Your task to perform on an android device: turn notification dots off Image 0: 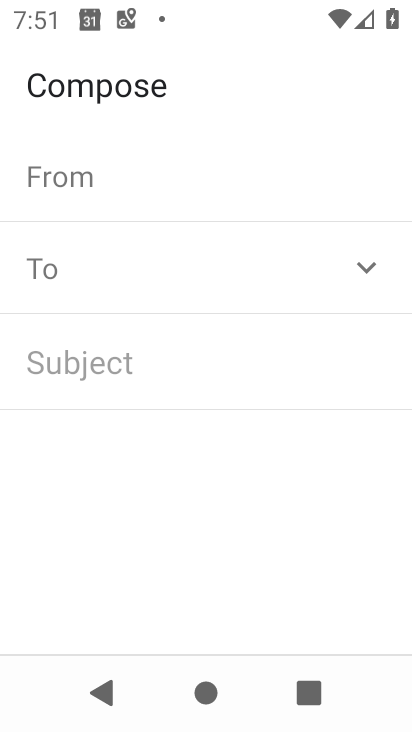
Step 0: click (256, 473)
Your task to perform on an android device: turn notification dots off Image 1: 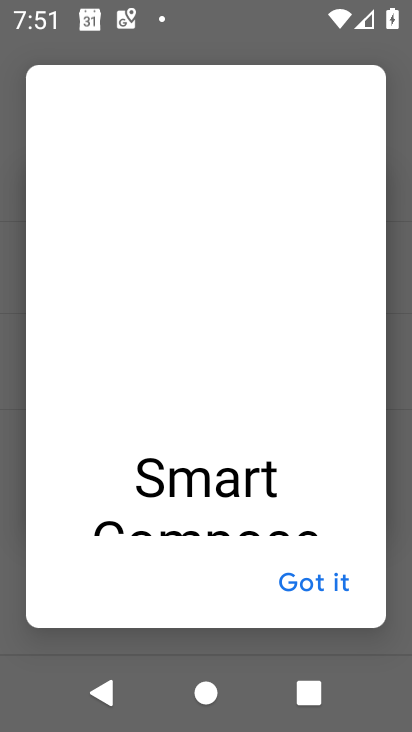
Step 1: press home button
Your task to perform on an android device: turn notification dots off Image 2: 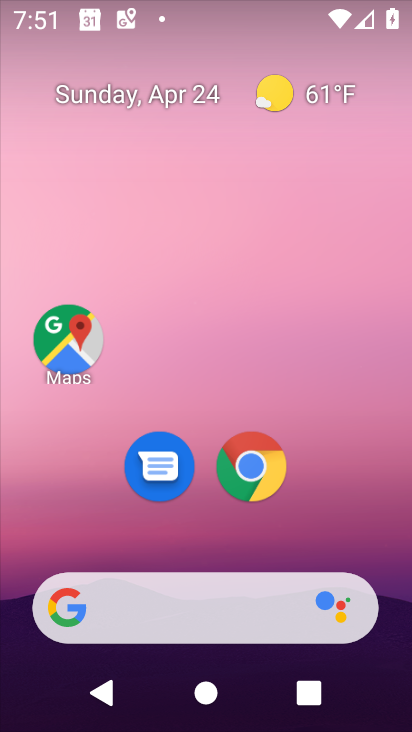
Step 2: drag from (220, 514) to (278, 22)
Your task to perform on an android device: turn notification dots off Image 3: 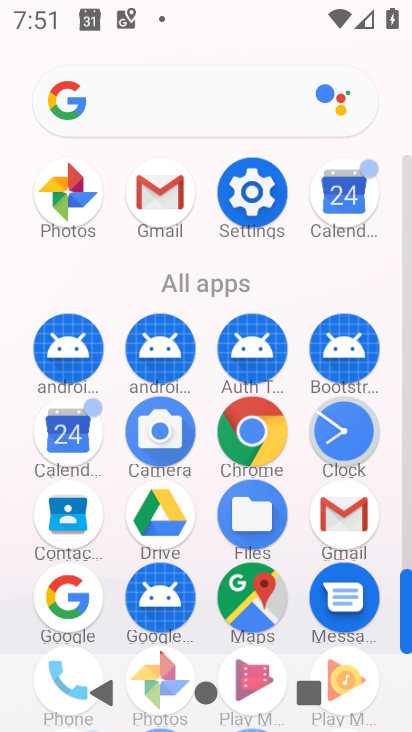
Step 3: click (264, 223)
Your task to perform on an android device: turn notification dots off Image 4: 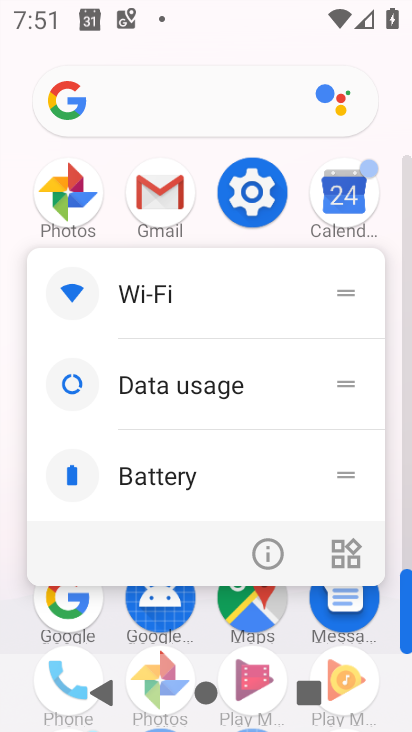
Step 4: click (265, 221)
Your task to perform on an android device: turn notification dots off Image 5: 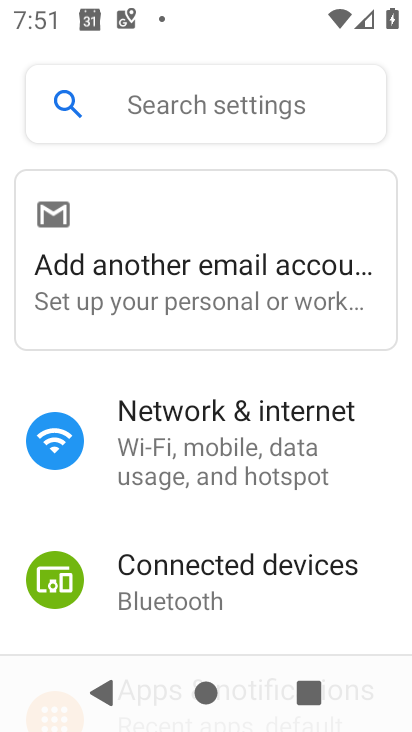
Step 5: drag from (208, 612) to (241, 271)
Your task to perform on an android device: turn notification dots off Image 6: 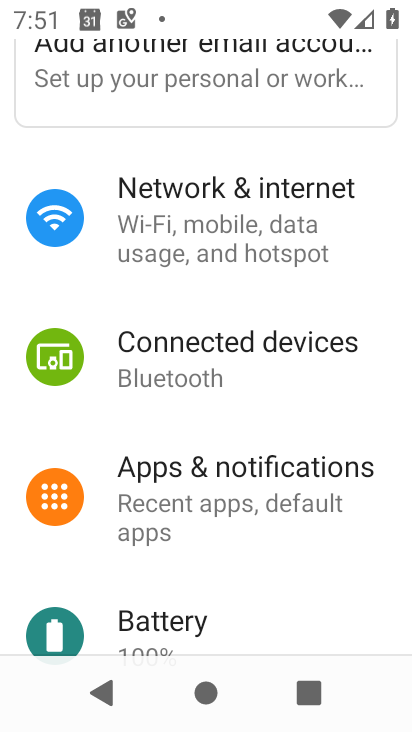
Step 6: click (224, 497)
Your task to perform on an android device: turn notification dots off Image 7: 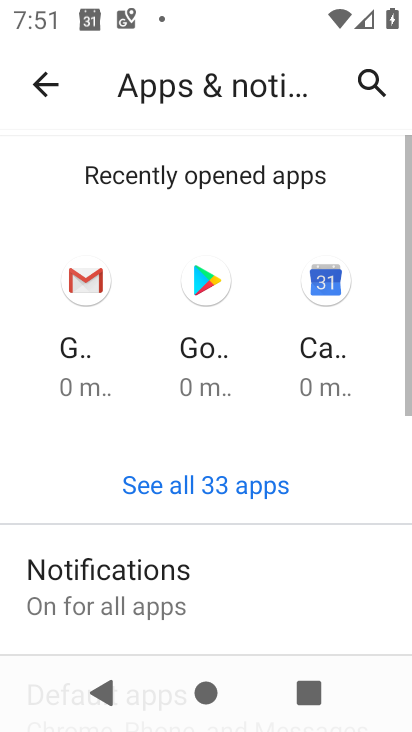
Step 7: drag from (175, 571) to (234, 166)
Your task to perform on an android device: turn notification dots off Image 8: 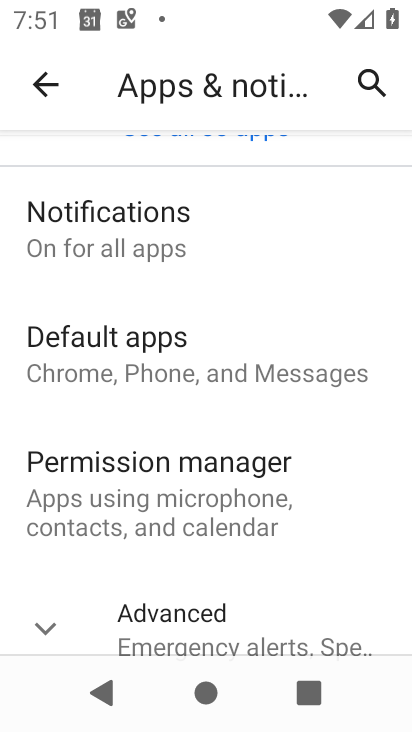
Step 8: drag from (184, 604) to (217, 418)
Your task to perform on an android device: turn notification dots off Image 9: 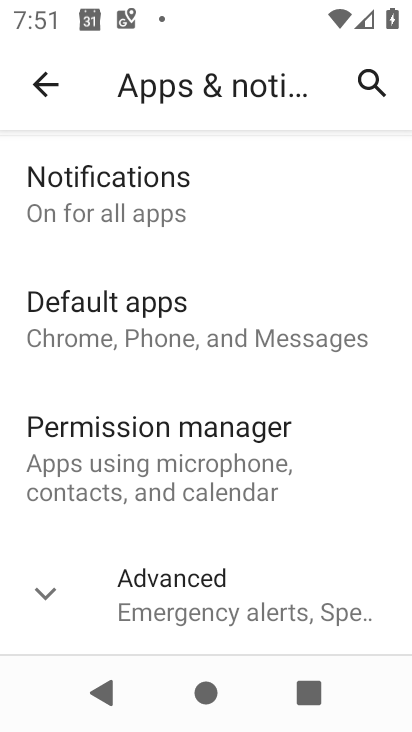
Step 9: click (157, 212)
Your task to perform on an android device: turn notification dots off Image 10: 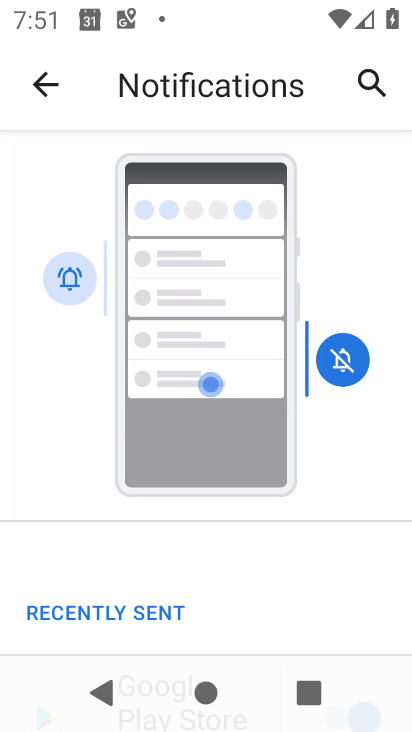
Step 10: drag from (186, 575) to (215, 151)
Your task to perform on an android device: turn notification dots off Image 11: 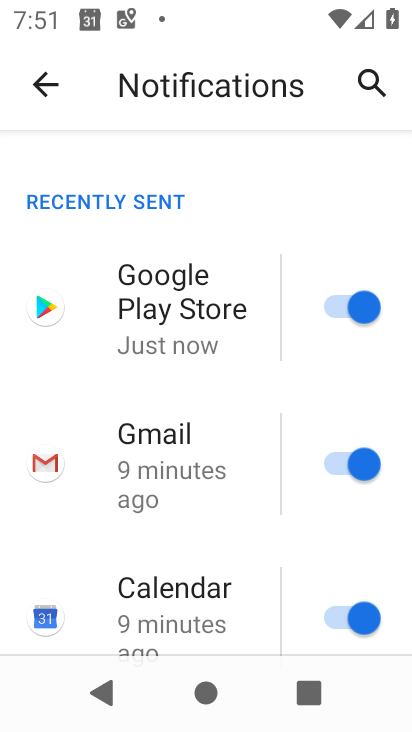
Step 11: drag from (172, 550) to (259, 1)
Your task to perform on an android device: turn notification dots off Image 12: 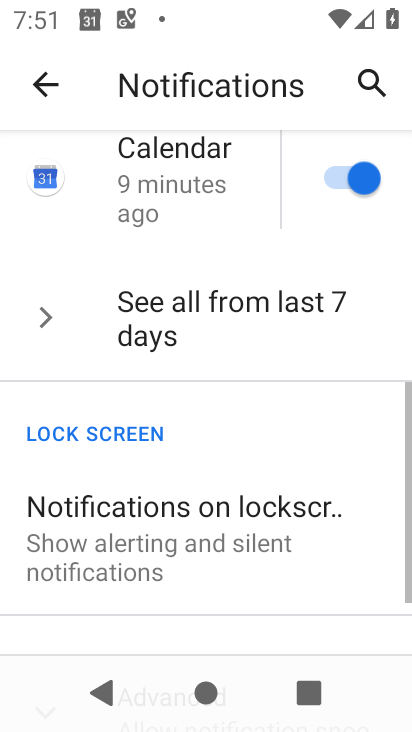
Step 12: drag from (191, 524) to (231, 134)
Your task to perform on an android device: turn notification dots off Image 13: 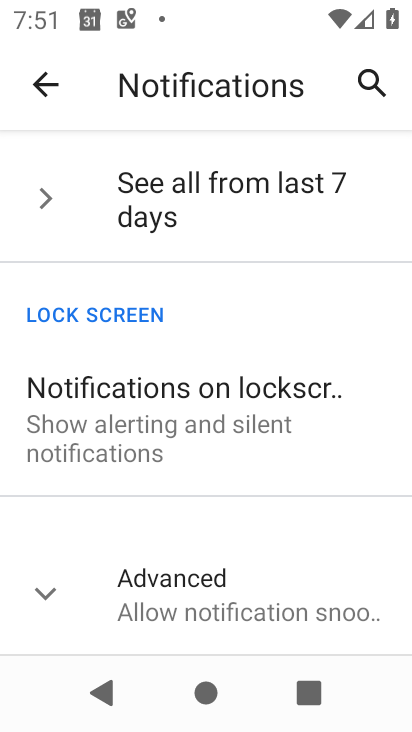
Step 13: click (175, 599)
Your task to perform on an android device: turn notification dots off Image 14: 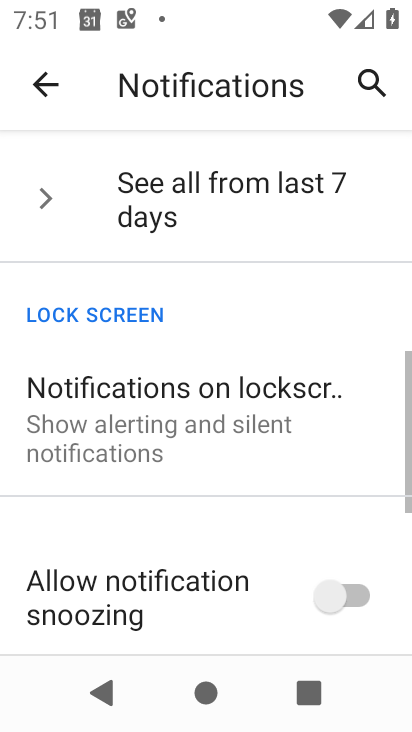
Step 14: drag from (188, 578) to (233, 126)
Your task to perform on an android device: turn notification dots off Image 15: 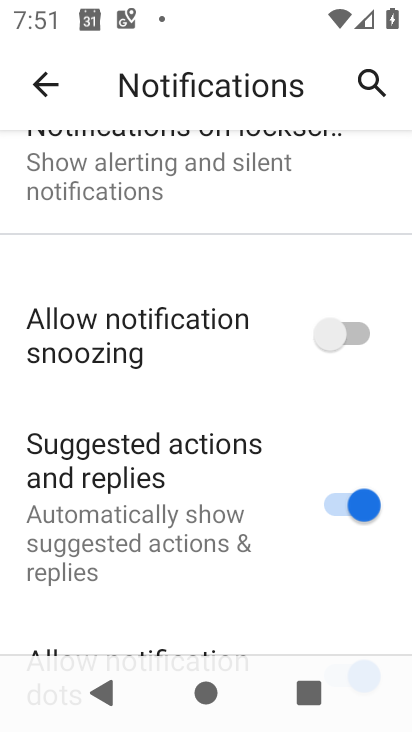
Step 15: drag from (143, 563) to (222, 77)
Your task to perform on an android device: turn notification dots off Image 16: 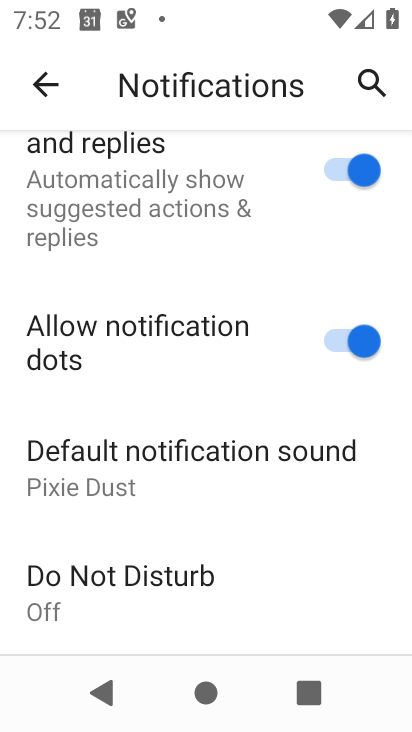
Step 16: click (329, 345)
Your task to perform on an android device: turn notification dots off Image 17: 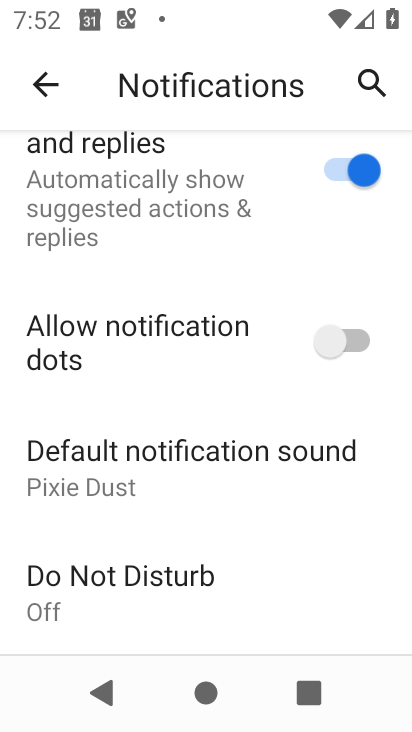
Step 17: task complete